Your task to perform on an android device: turn off notifications settings in the gmail app Image 0: 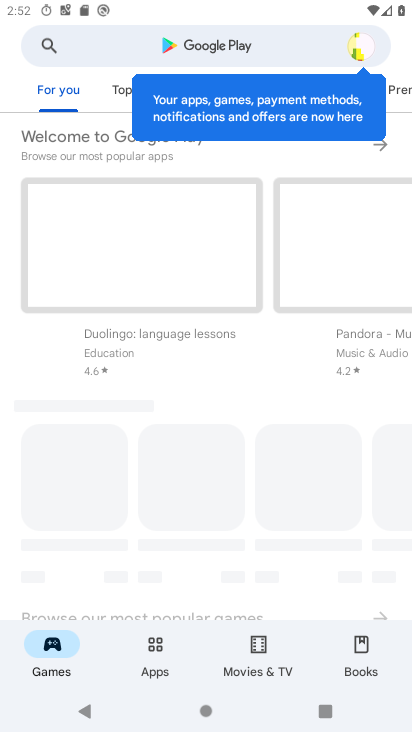
Step 0: press home button
Your task to perform on an android device: turn off notifications settings in the gmail app Image 1: 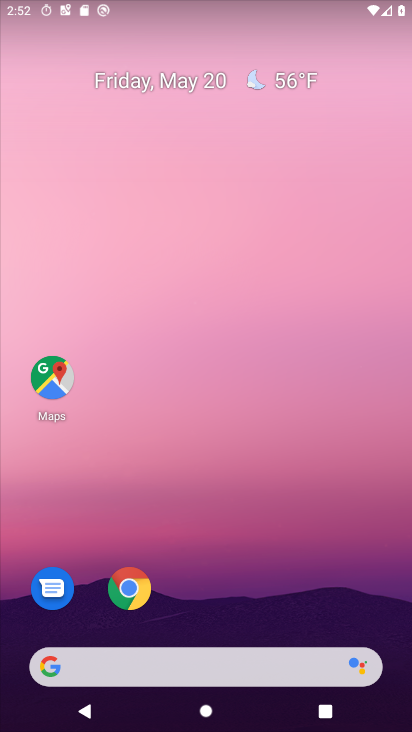
Step 1: drag from (69, 492) to (294, 97)
Your task to perform on an android device: turn off notifications settings in the gmail app Image 2: 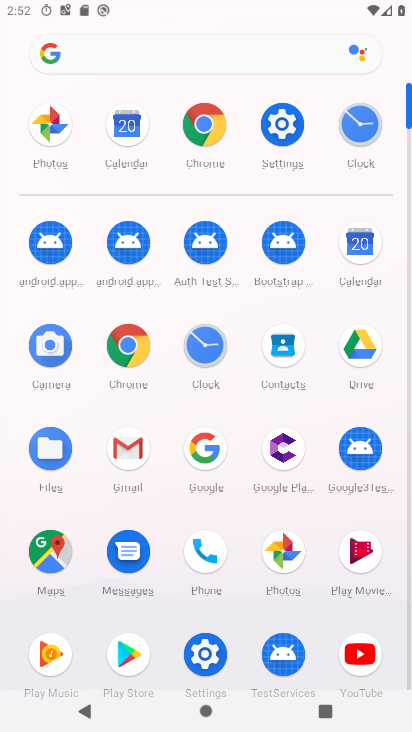
Step 2: click (280, 129)
Your task to perform on an android device: turn off notifications settings in the gmail app Image 3: 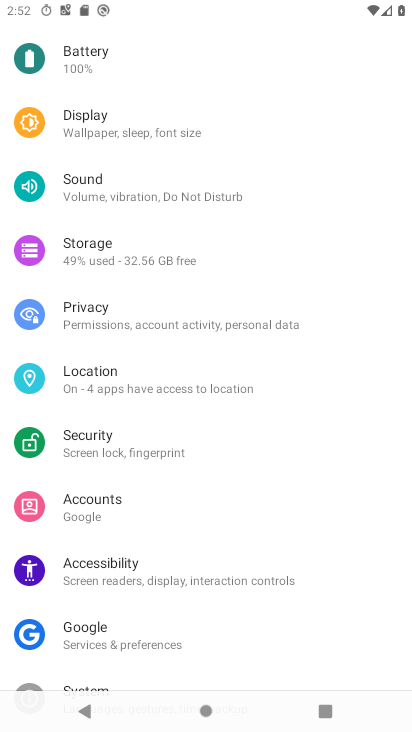
Step 3: drag from (110, 150) to (151, 513)
Your task to perform on an android device: turn off notifications settings in the gmail app Image 4: 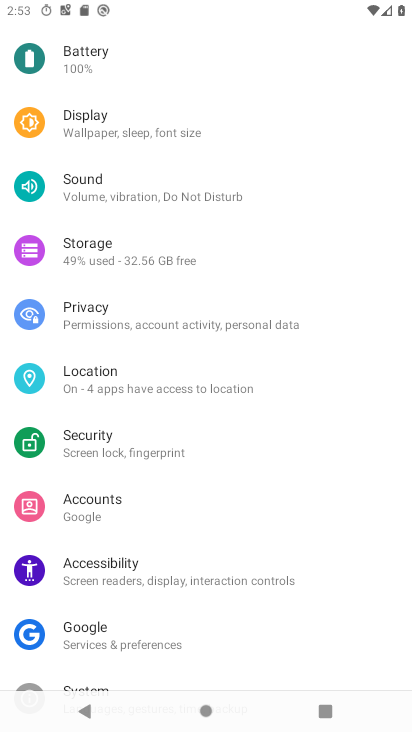
Step 4: drag from (131, 144) to (149, 572)
Your task to perform on an android device: turn off notifications settings in the gmail app Image 5: 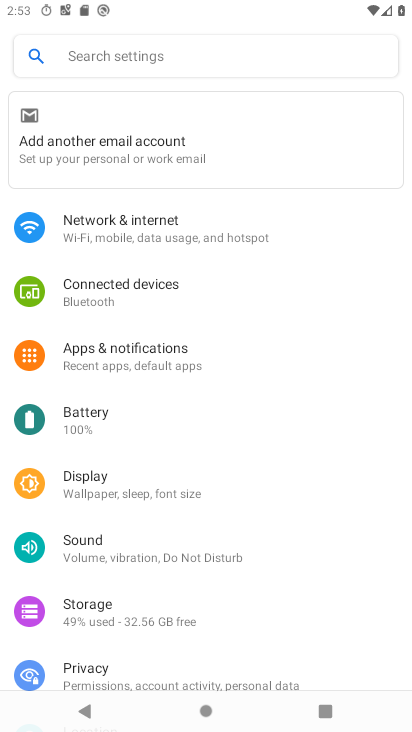
Step 5: click (123, 368)
Your task to perform on an android device: turn off notifications settings in the gmail app Image 6: 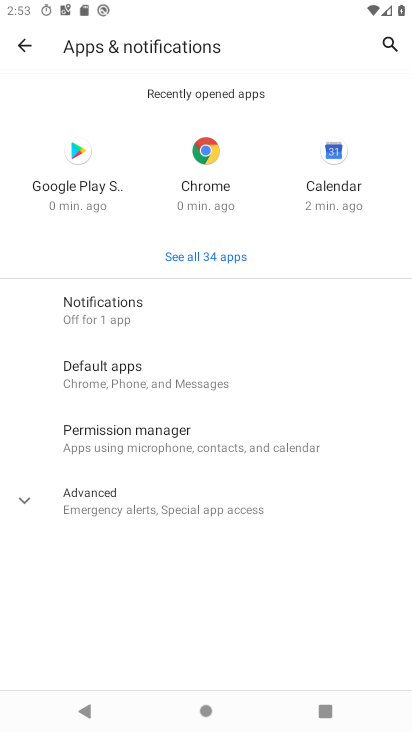
Step 6: click (179, 252)
Your task to perform on an android device: turn off notifications settings in the gmail app Image 7: 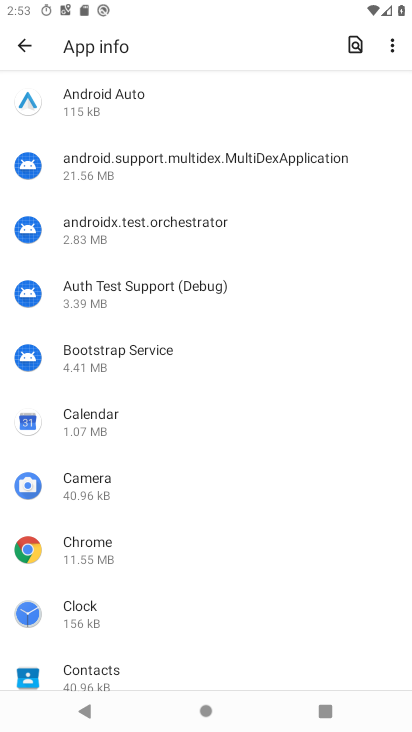
Step 7: drag from (13, 488) to (190, 174)
Your task to perform on an android device: turn off notifications settings in the gmail app Image 8: 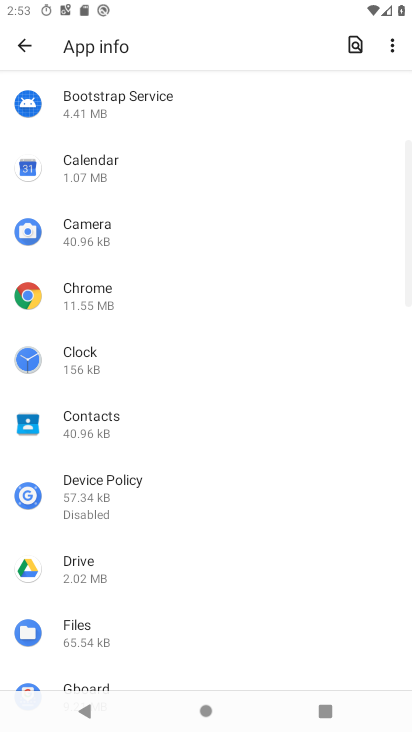
Step 8: drag from (7, 625) to (288, 157)
Your task to perform on an android device: turn off notifications settings in the gmail app Image 9: 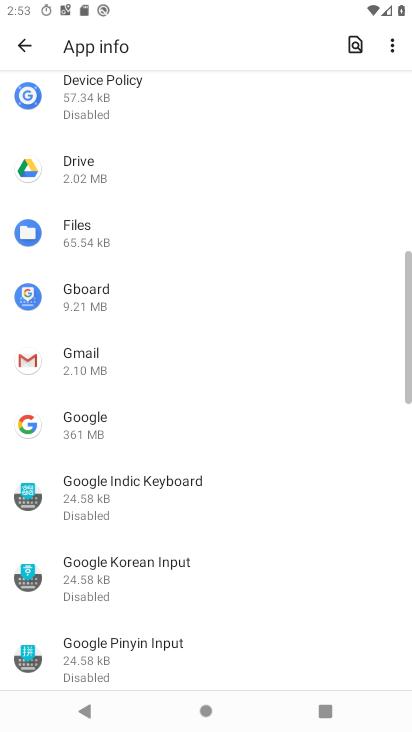
Step 9: click (128, 358)
Your task to perform on an android device: turn off notifications settings in the gmail app Image 10: 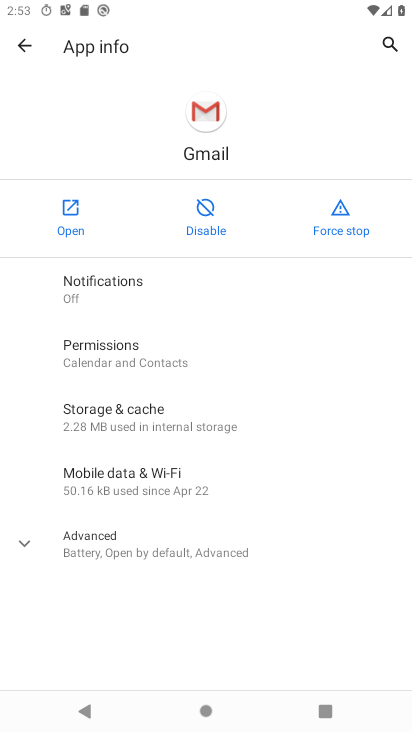
Step 10: click (68, 207)
Your task to perform on an android device: turn off notifications settings in the gmail app Image 11: 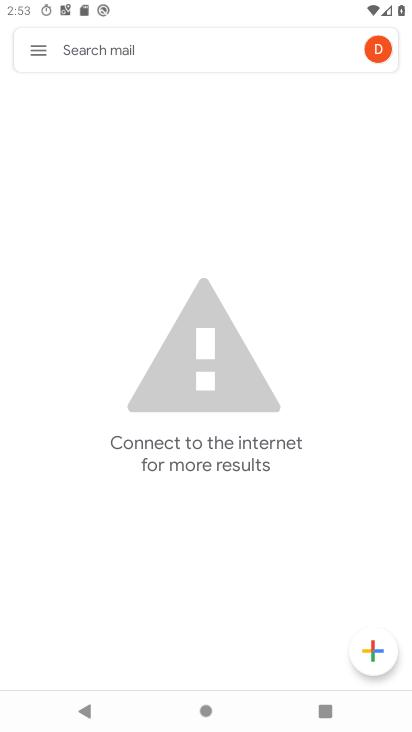
Step 11: click (31, 54)
Your task to perform on an android device: turn off notifications settings in the gmail app Image 12: 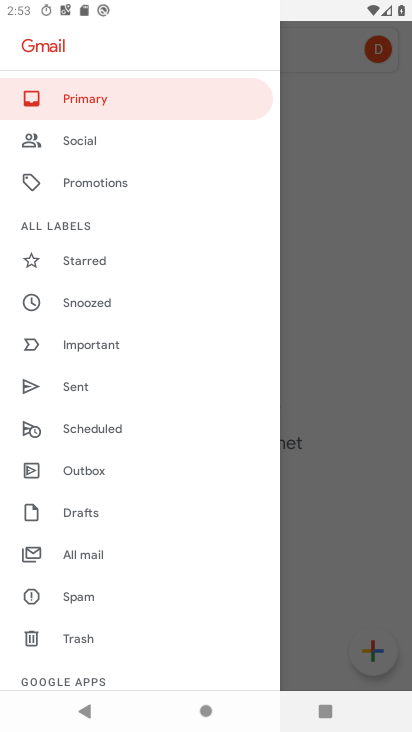
Step 12: drag from (35, 495) to (195, 122)
Your task to perform on an android device: turn off notifications settings in the gmail app Image 13: 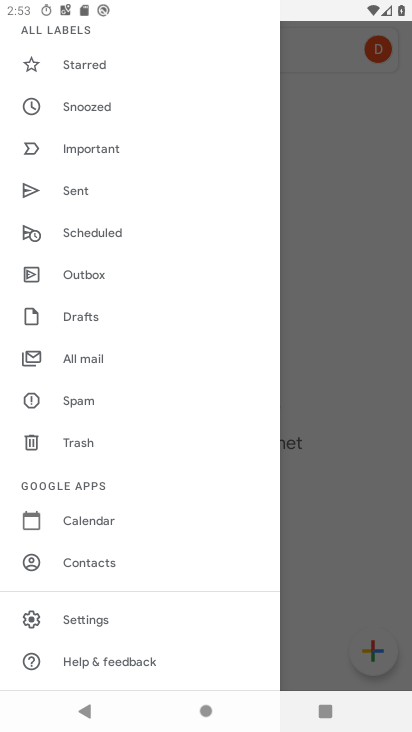
Step 13: click (104, 616)
Your task to perform on an android device: turn off notifications settings in the gmail app Image 14: 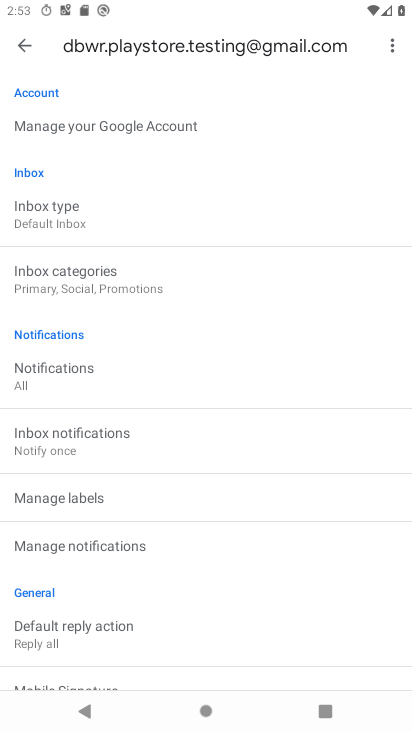
Step 14: click (97, 536)
Your task to perform on an android device: turn off notifications settings in the gmail app Image 15: 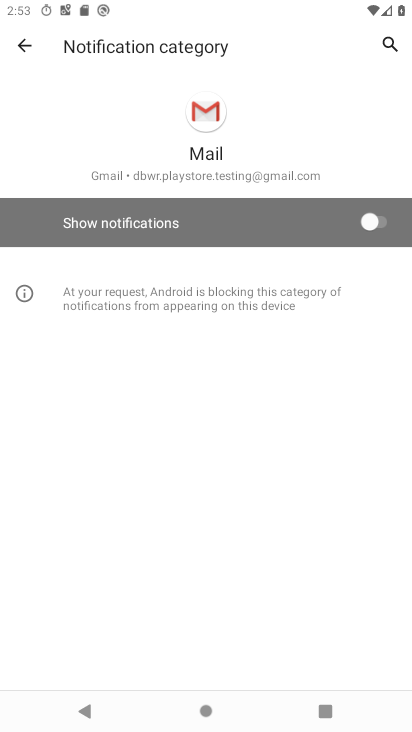
Step 15: task complete